Your task to perform on an android device: Open the calendar and show me this week's events? Image 0: 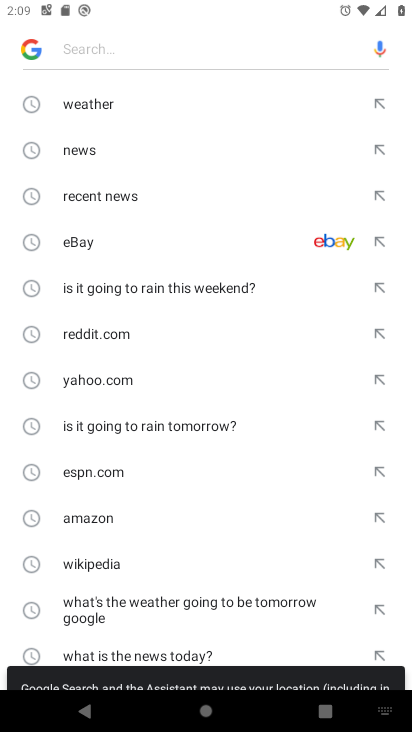
Step 0: press home button
Your task to perform on an android device: Open the calendar and show me this week's events? Image 1: 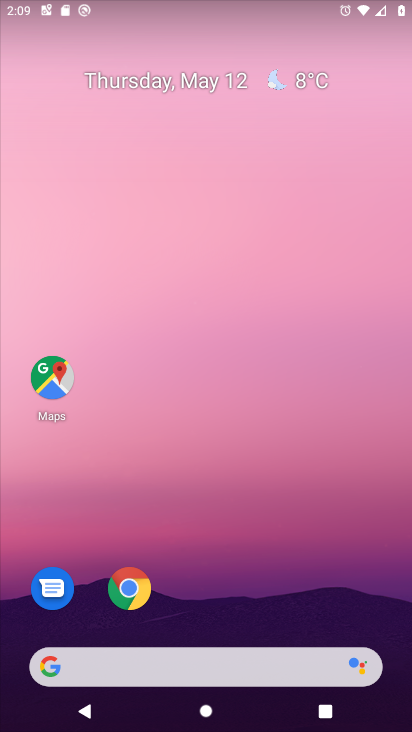
Step 1: drag from (341, 596) to (361, 127)
Your task to perform on an android device: Open the calendar and show me this week's events? Image 2: 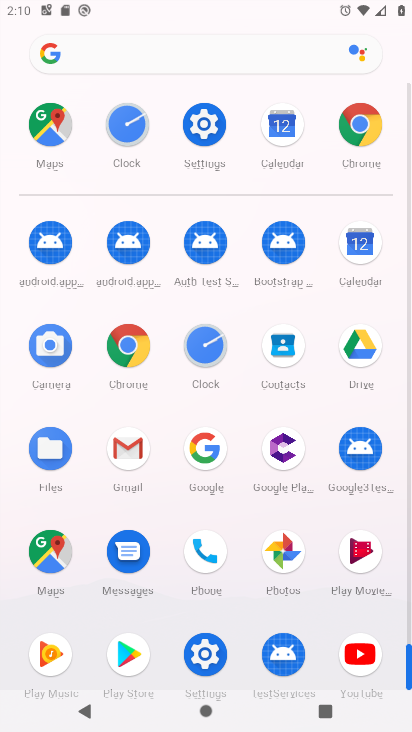
Step 2: click (382, 255)
Your task to perform on an android device: Open the calendar and show me this week's events? Image 3: 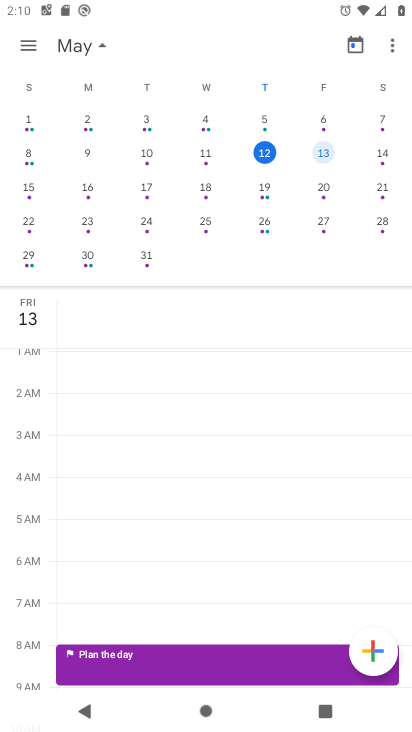
Step 3: click (373, 159)
Your task to perform on an android device: Open the calendar and show me this week's events? Image 4: 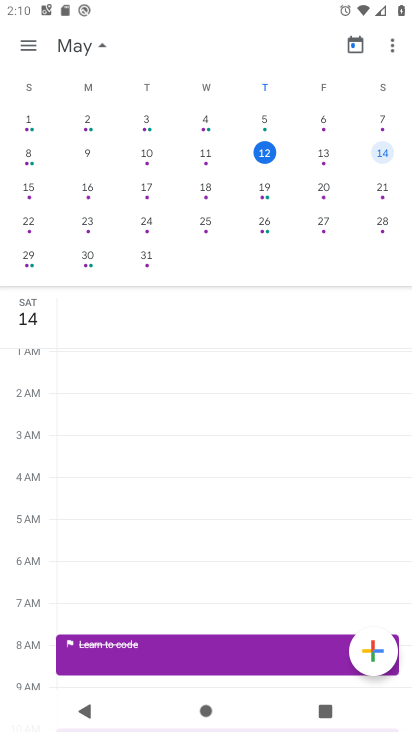
Step 4: task complete